Your task to perform on an android device: Open Google Image 0: 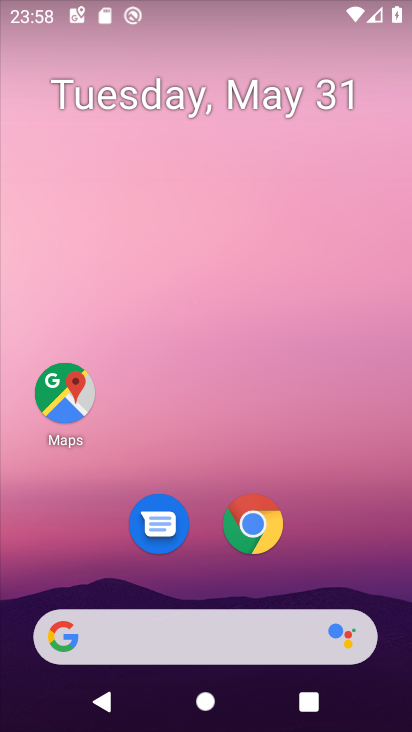
Step 0: click (252, 643)
Your task to perform on an android device: Open Google Image 1: 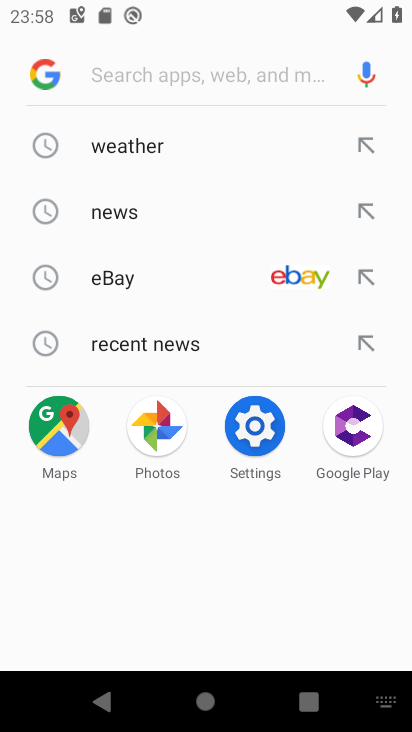
Step 1: click (44, 74)
Your task to perform on an android device: Open Google Image 2: 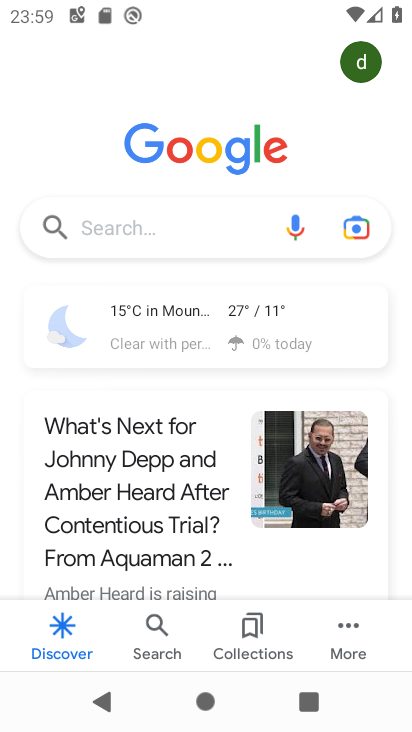
Step 2: task complete